Your task to perform on an android device: open a bookmark in the chrome app Image 0: 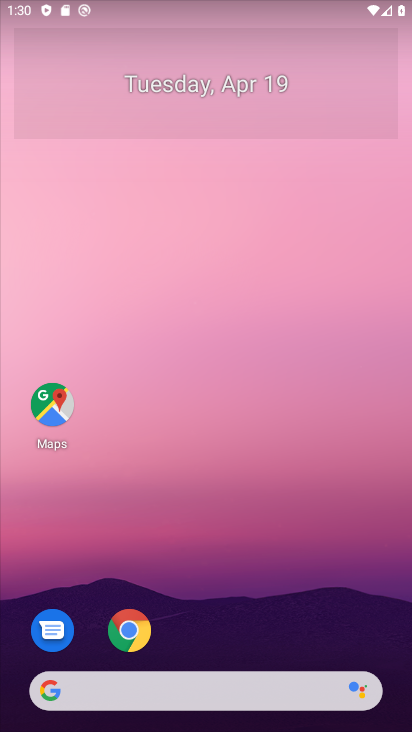
Step 0: click (134, 624)
Your task to perform on an android device: open a bookmark in the chrome app Image 1: 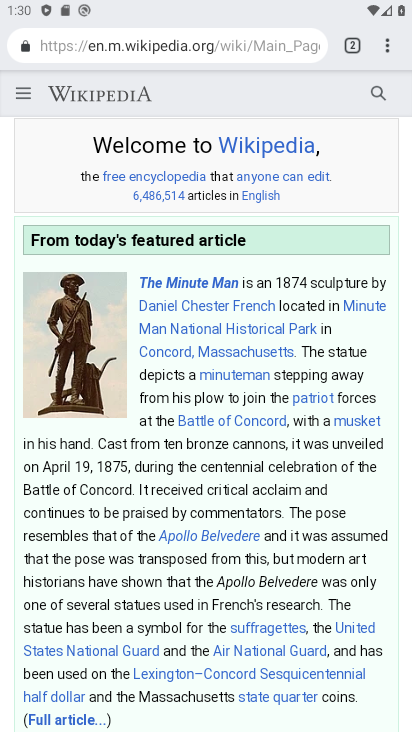
Step 1: click (386, 43)
Your task to perform on an android device: open a bookmark in the chrome app Image 2: 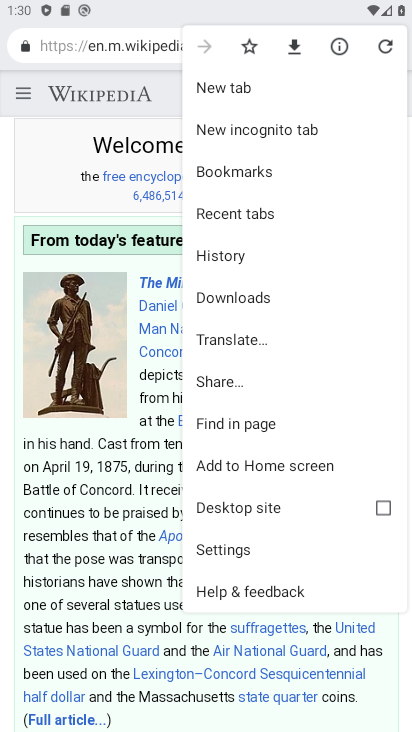
Step 2: click (234, 171)
Your task to perform on an android device: open a bookmark in the chrome app Image 3: 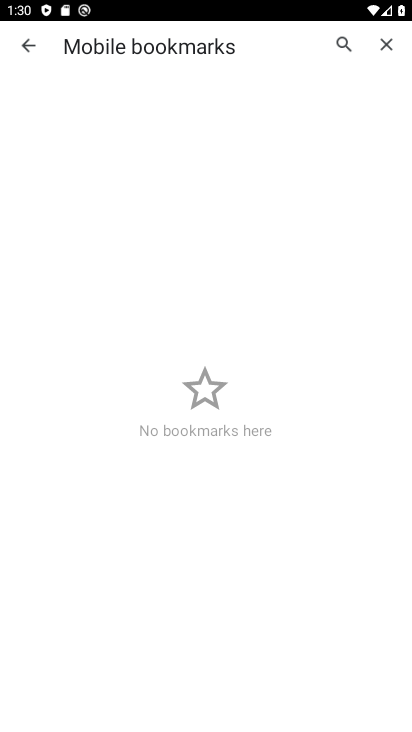
Step 3: click (27, 47)
Your task to perform on an android device: open a bookmark in the chrome app Image 4: 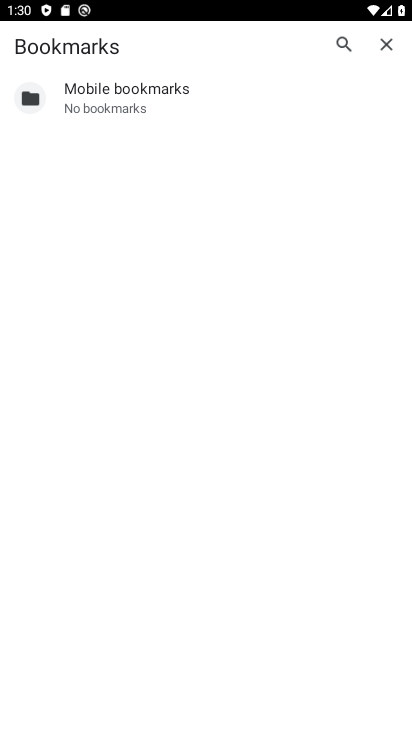
Step 4: click (387, 44)
Your task to perform on an android device: open a bookmark in the chrome app Image 5: 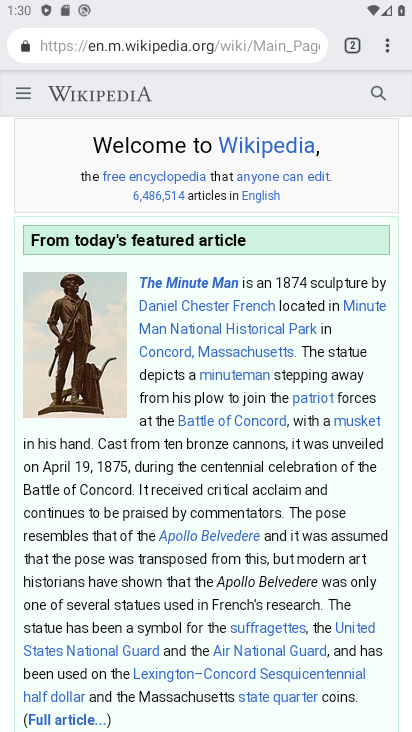
Step 5: click (356, 41)
Your task to perform on an android device: open a bookmark in the chrome app Image 6: 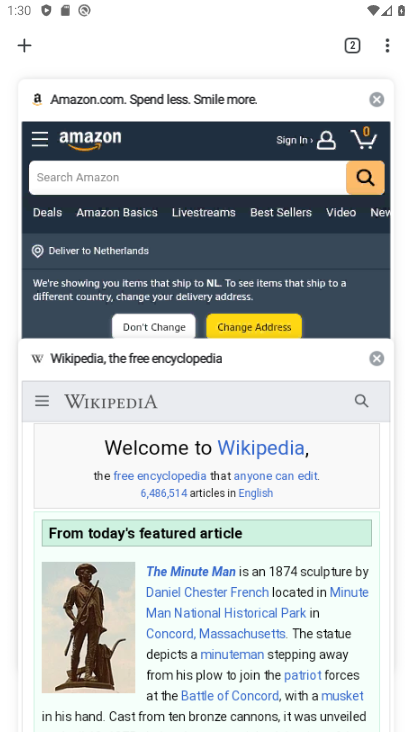
Step 6: click (22, 41)
Your task to perform on an android device: open a bookmark in the chrome app Image 7: 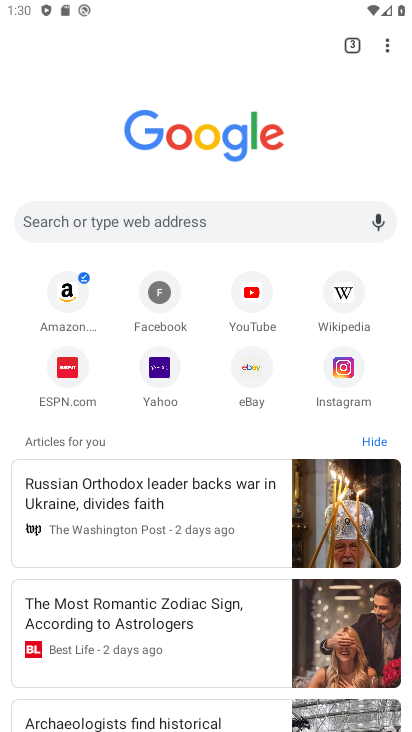
Step 7: click (158, 375)
Your task to perform on an android device: open a bookmark in the chrome app Image 8: 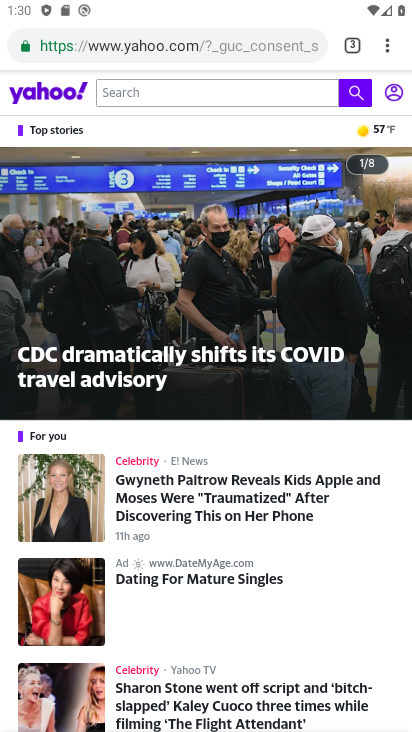
Step 8: task complete